Your task to perform on an android device: Show the shopping cart on target.com. Add "acer nitro" to the cart on target.com Image 0: 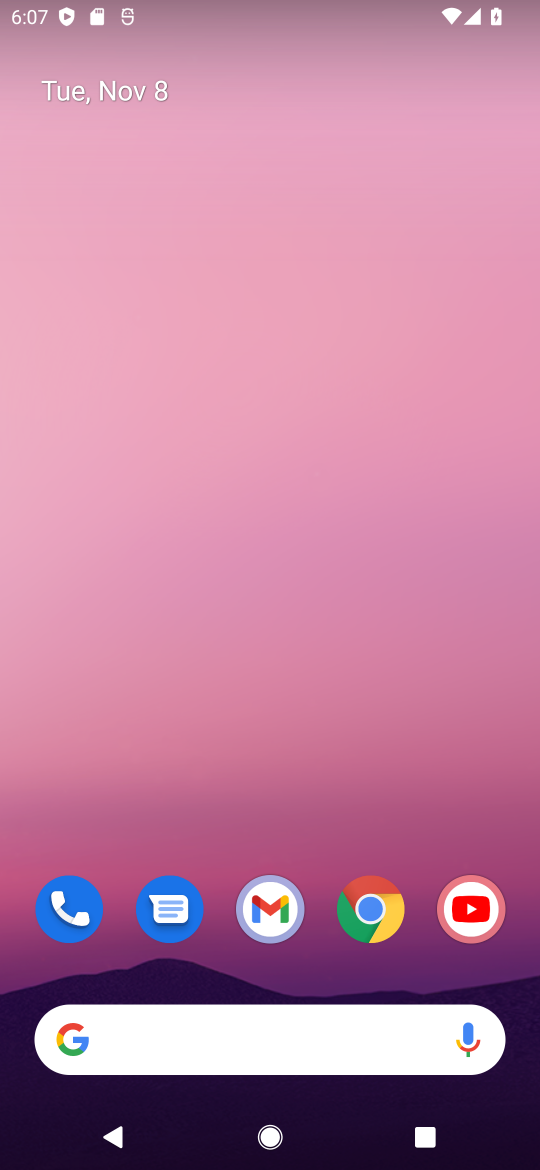
Step 0: press home button
Your task to perform on an android device: Show the shopping cart on target.com. Add "acer nitro" to the cart on target.com Image 1: 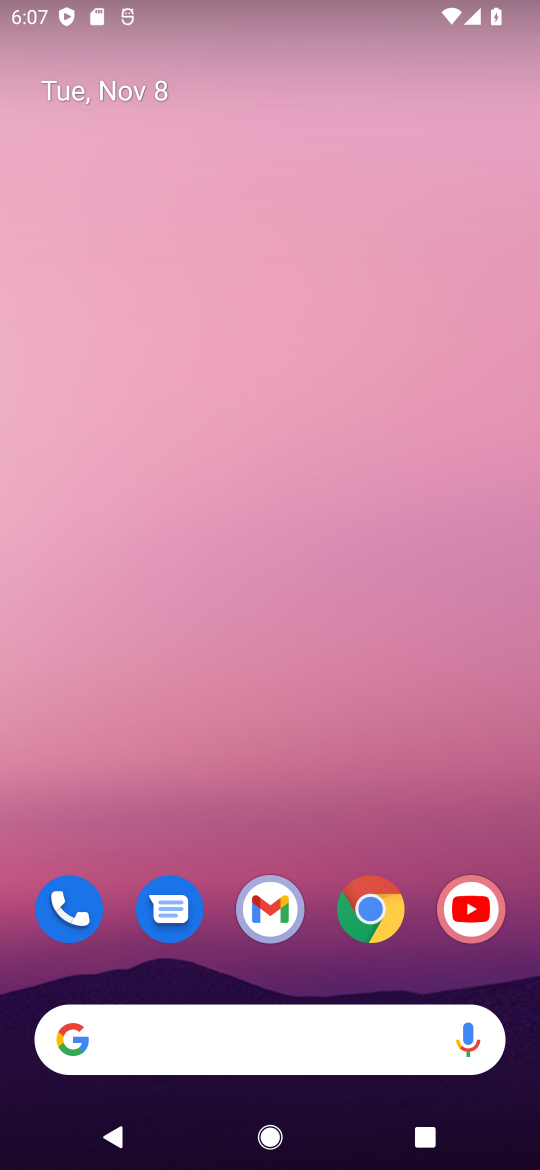
Step 1: click (363, 908)
Your task to perform on an android device: Show the shopping cart on target.com. Add "acer nitro" to the cart on target.com Image 2: 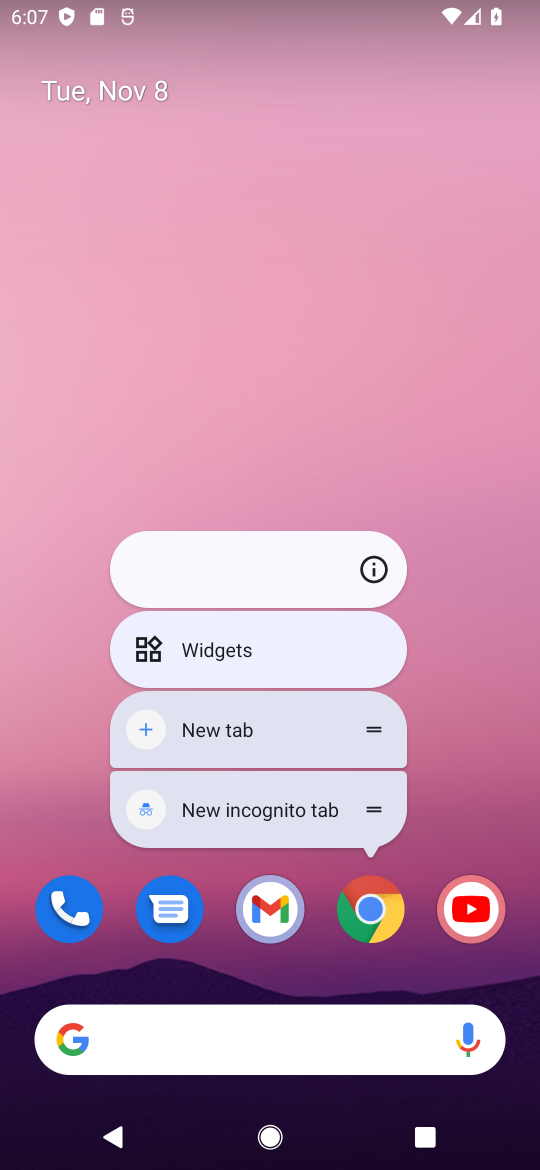
Step 2: click (378, 915)
Your task to perform on an android device: Show the shopping cart on target.com. Add "acer nitro" to the cart on target.com Image 3: 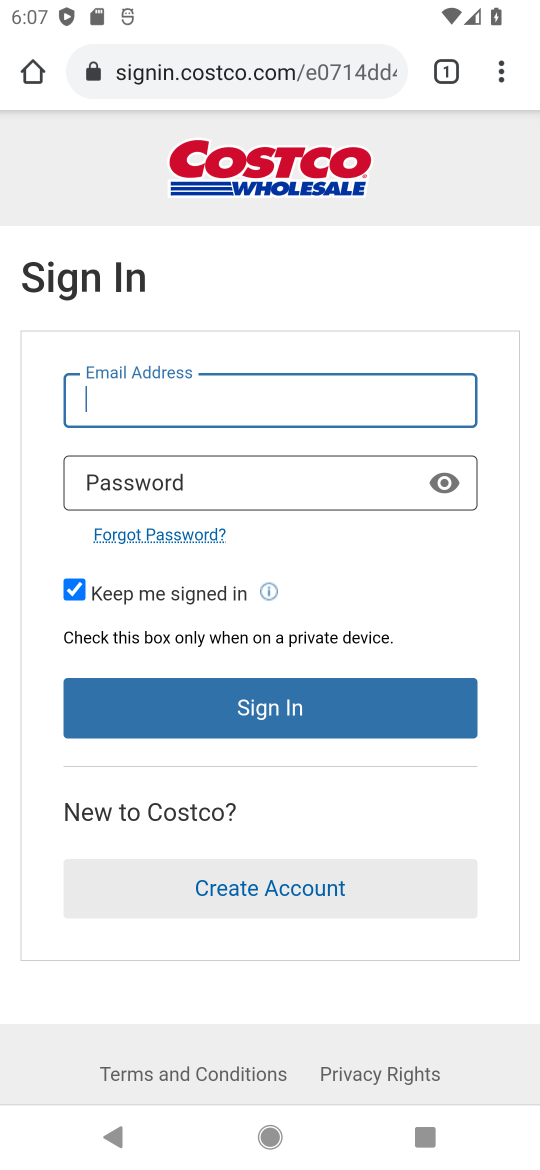
Step 3: click (273, 62)
Your task to perform on an android device: Show the shopping cart on target.com. Add "acer nitro" to the cart on target.com Image 4: 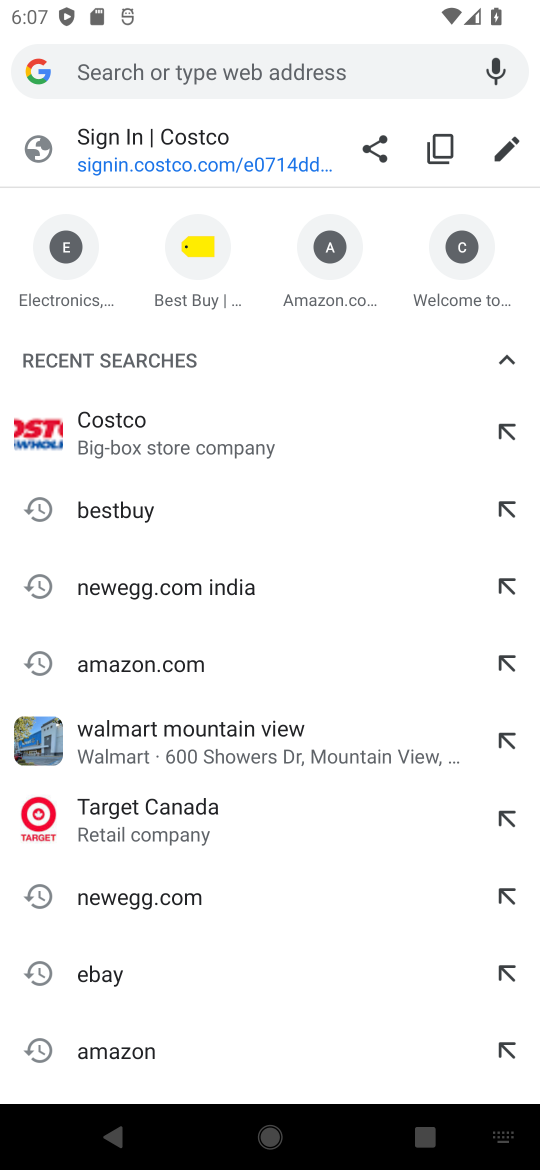
Step 4: drag from (439, 279) to (13, 322)
Your task to perform on an android device: Show the shopping cart on target.com. Add "acer nitro" to the cart on target.com Image 5: 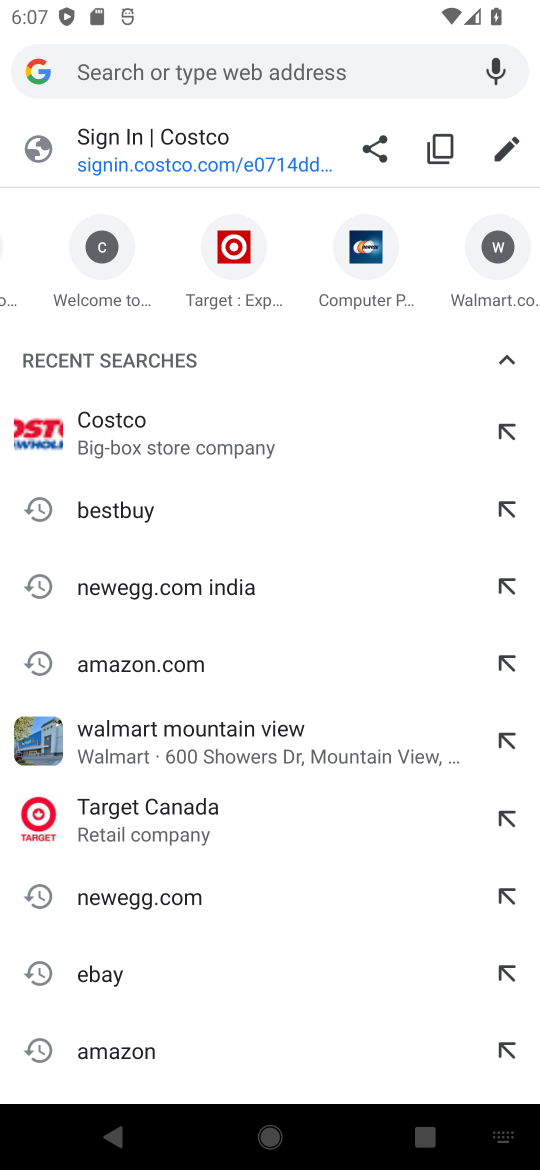
Step 5: click (226, 245)
Your task to perform on an android device: Show the shopping cart on target.com. Add "acer nitro" to the cart on target.com Image 6: 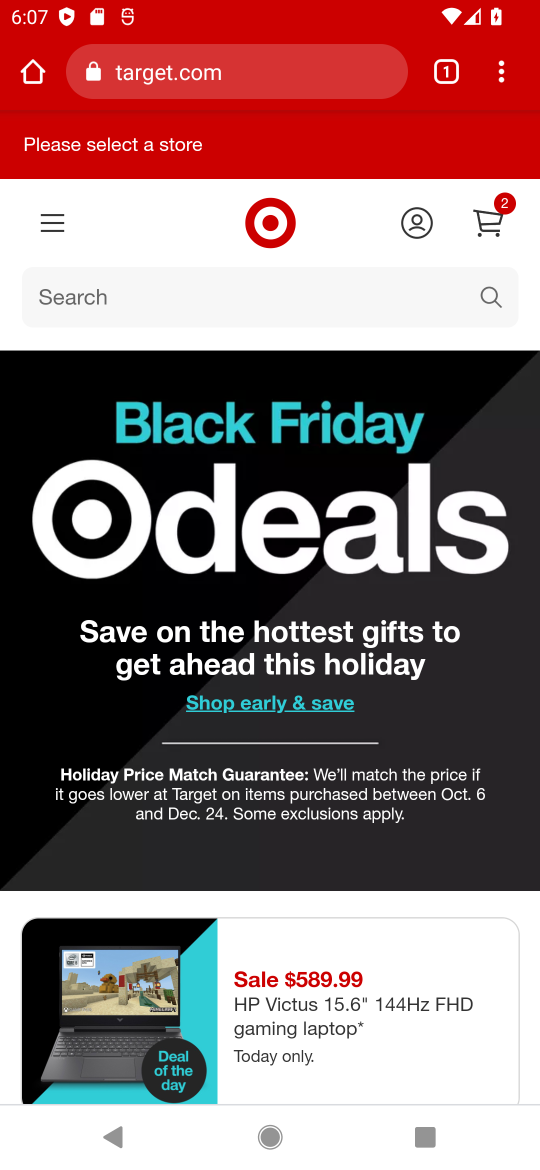
Step 6: click (167, 296)
Your task to perform on an android device: Show the shopping cart on target.com. Add "acer nitro" to the cart on target.com Image 7: 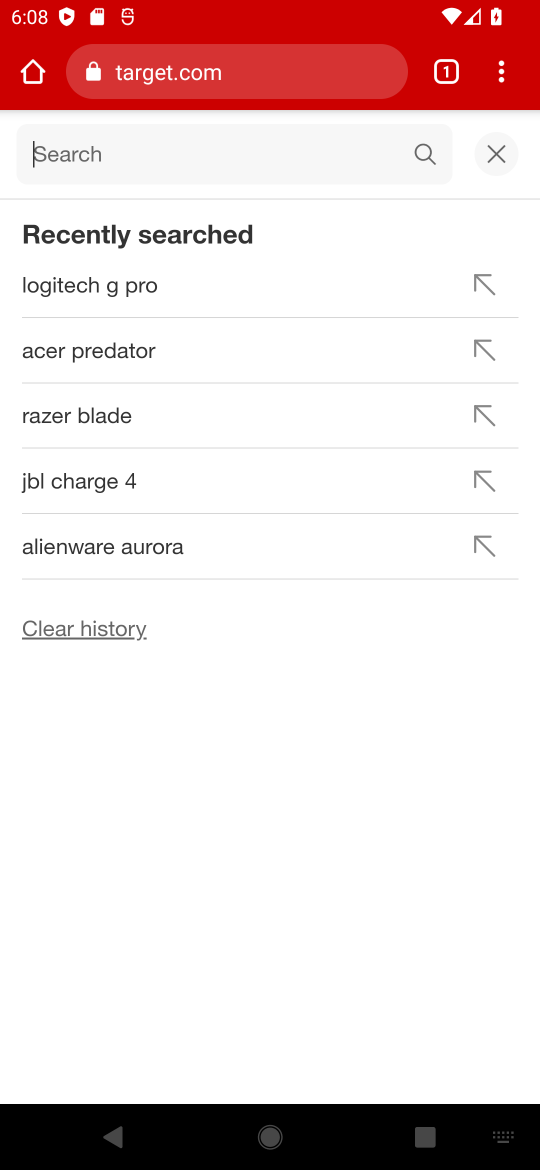
Step 7: type "acer nitro"
Your task to perform on an android device: Show the shopping cart on target.com. Add "acer nitro" to the cart on target.com Image 8: 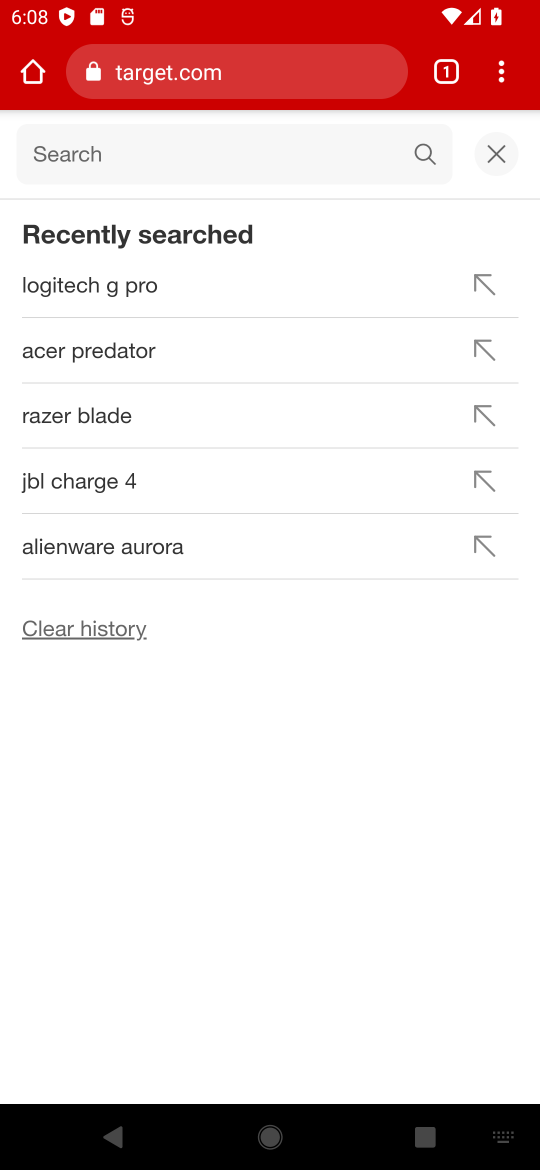
Step 8: press enter
Your task to perform on an android device: Show the shopping cart on target.com. Add "acer nitro" to the cart on target.com Image 9: 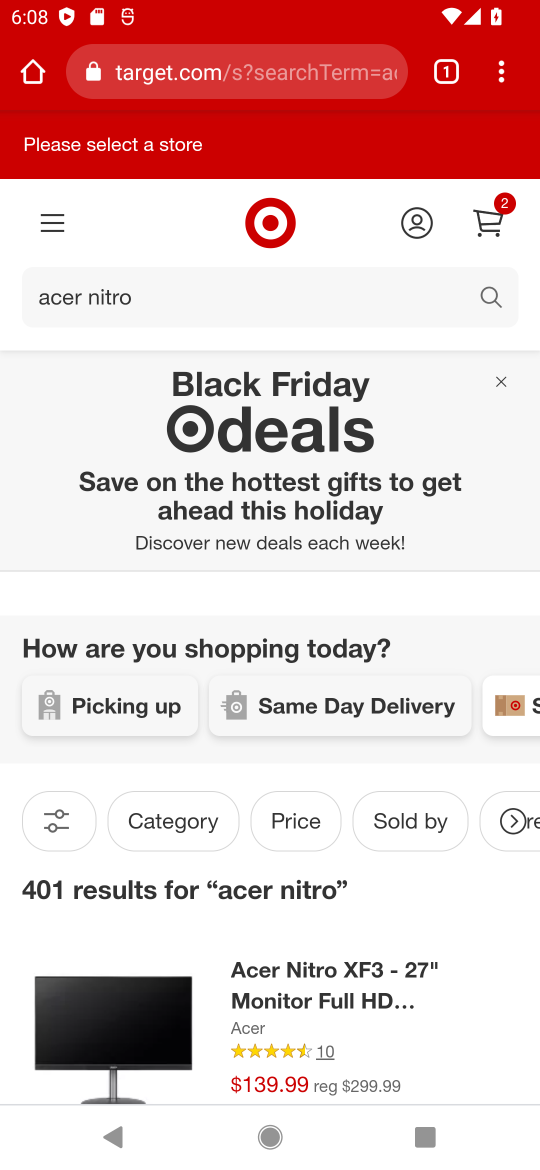
Step 9: drag from (150, 933) to (283, 523)
Your task to perform on an android device: Show the shopping cart on target.com. Add "acer nitro" to the cart on target.com Image 10: 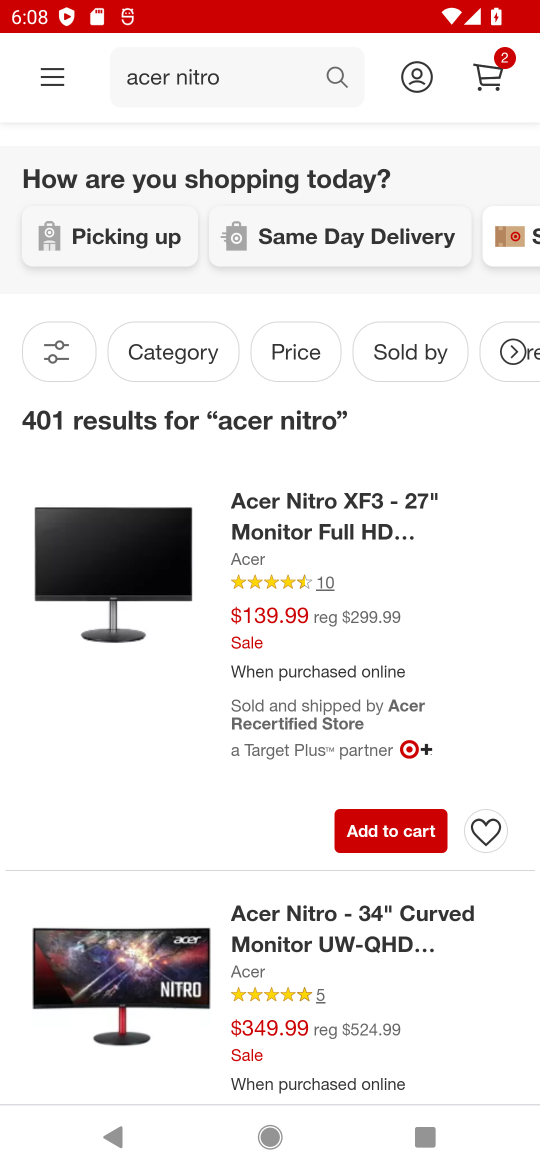
Step 10: click (399, 829)
Your task to perform on an android device: Show the shopping cart on target.com. Add "acer nitro" to the cart on target.com Image 11: 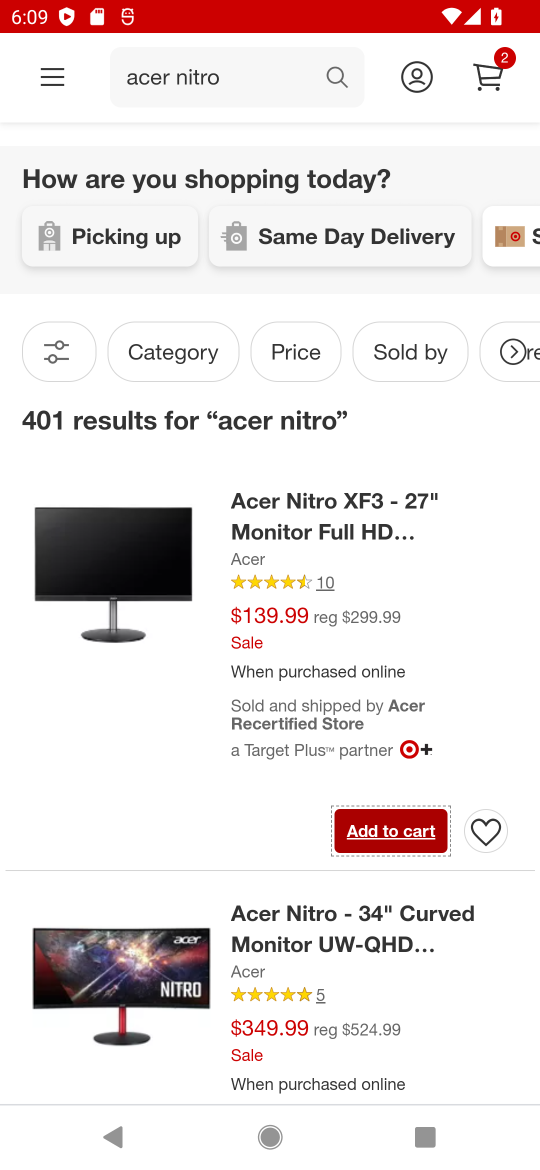
Step 11: click (382, 835)
Your task to perform on an android device: Show the shopping cart on target.com. Add "acer nitro" to the cart on target.com Image 12: 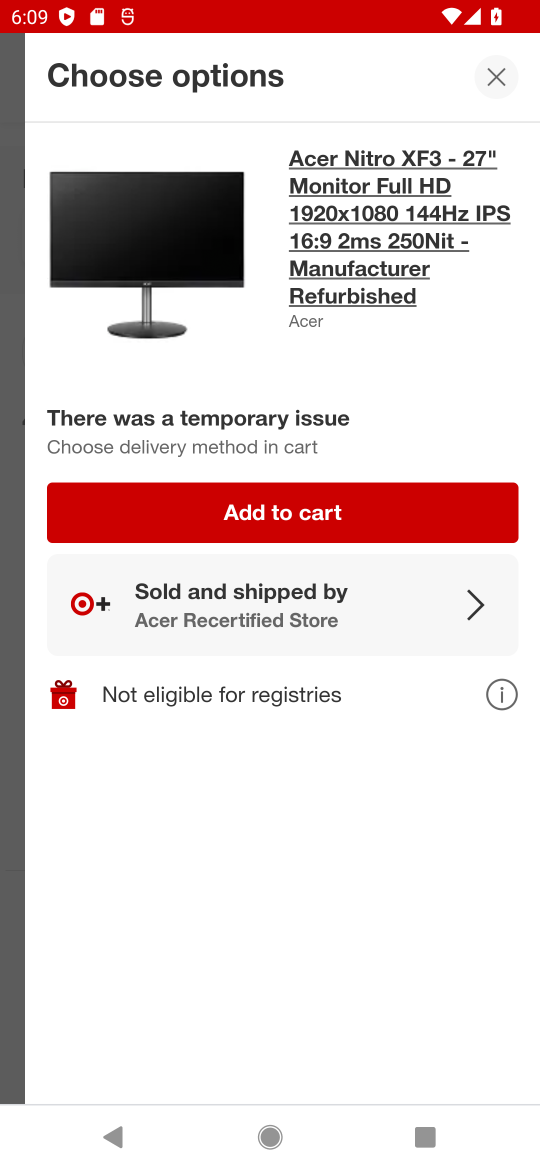
Step 12: click (390, 512)
Your task to perform on an android device: Show the shopping cart on target.com. Add "acer nitro" to the cart on target.com Image 13: 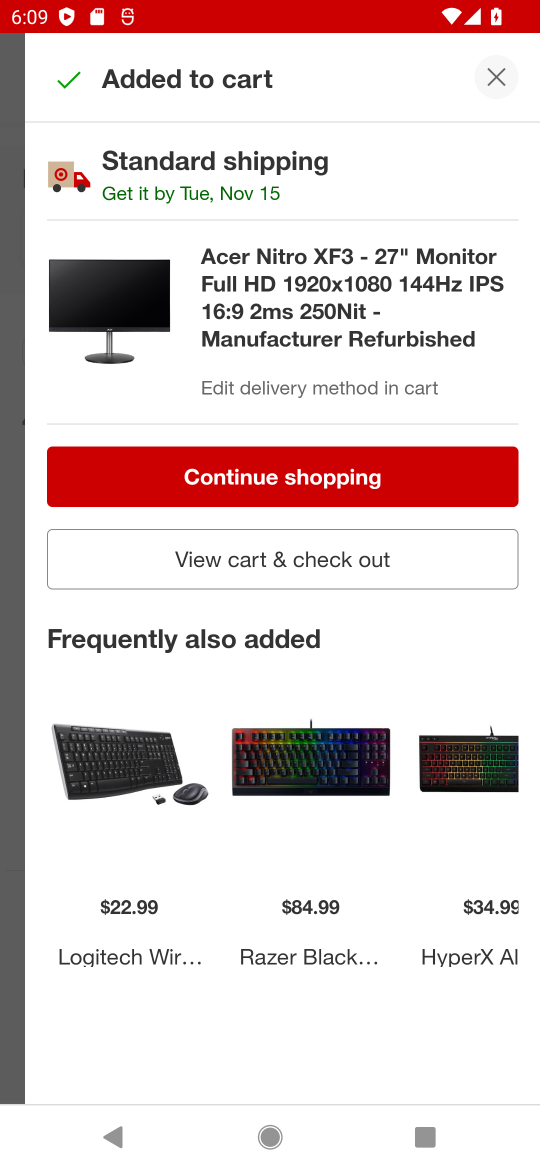
Step 13: click (503, 75)
Your task to perform on an android device: Show the shopping cart on target.com. Add "acer nitro" to the cart on target.com Image 14: 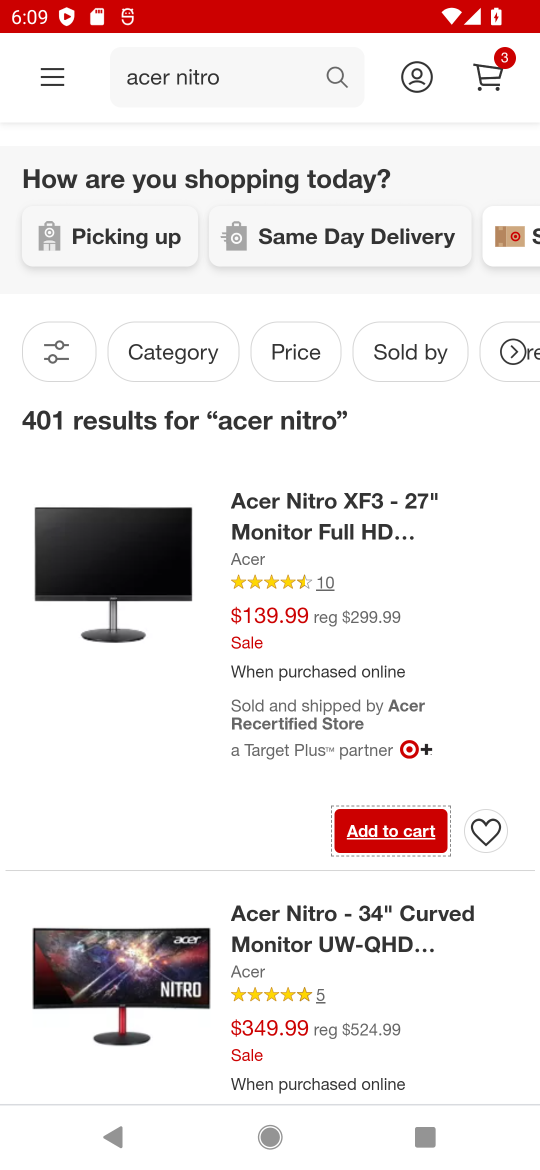
Step 14: click (490, 72)
Your task to perform on an android device: Show the shopping cart on target.com. Add "acer nitro" to the cart on target.com Image 15: 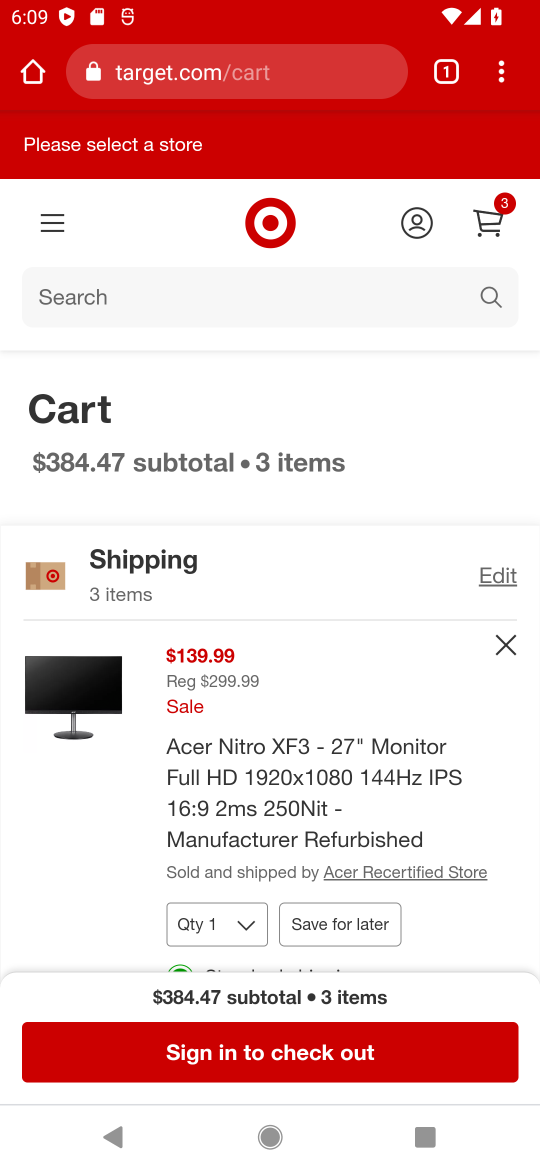
Step 15: drag from (173, 886) to (516, 146)
Your task to perform on an android device: Show the shopping cart on target.com. Add "acer nitro" to the cart on target.com Image 16: 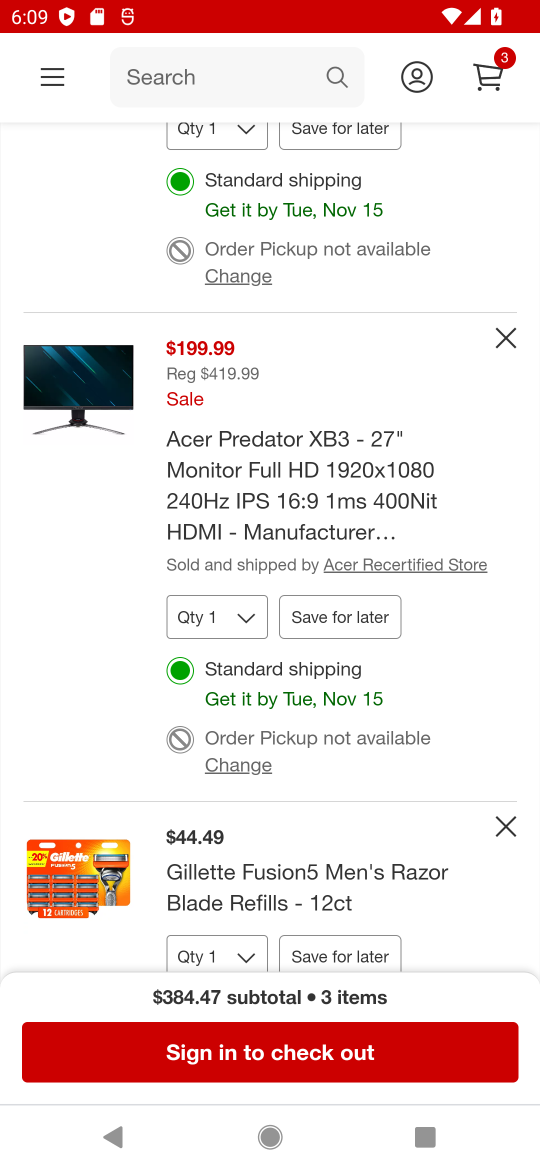
Step 16: click (505, 332)
Your task to perform on an android device: Show the shopping cart on target.com. Add "acer nitro" to the cart on target.com Image 17: 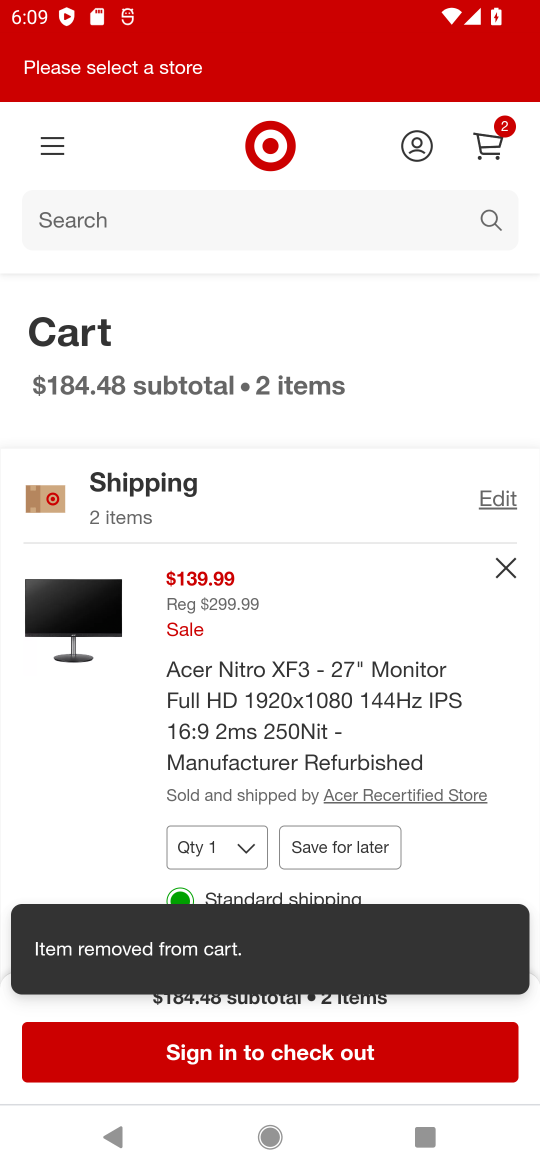
Step 17: drag from (425, 746) to (495, 134)
Your task to perform on an android device: Show the shopping cart on target.com. Add "acer nitro" to the cart on target.com Image 18: 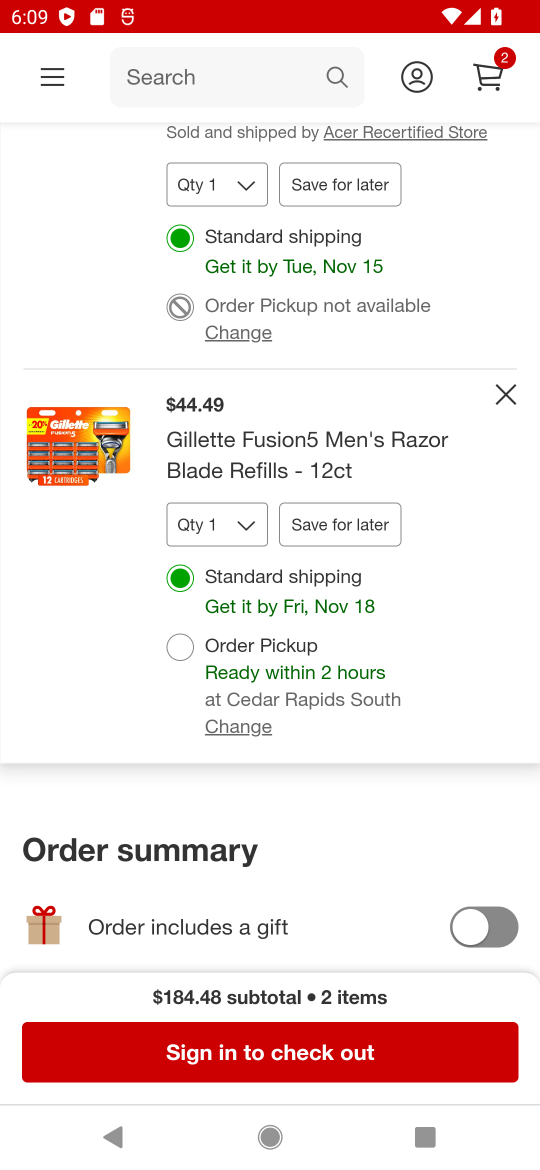
Step 18: click (501, 391)
Your task to perform on an android device: Show the shopping cart on target.com. Add "acer nitro" to the cart on target.com Image 19: 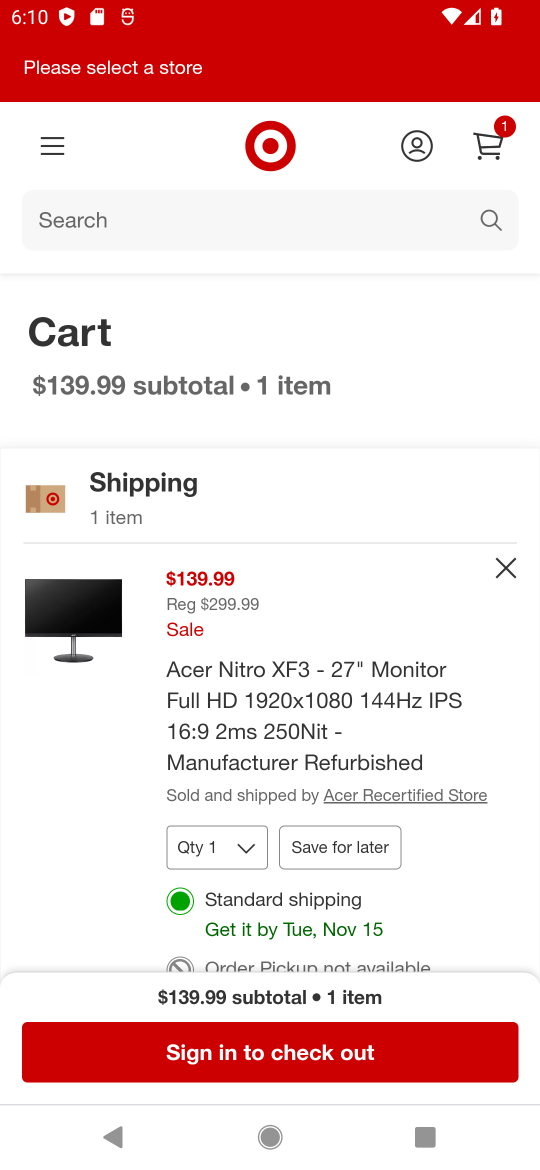
Step 19: task complete